Your task to perform on an android device: change your default location settings in chrome Image 0: 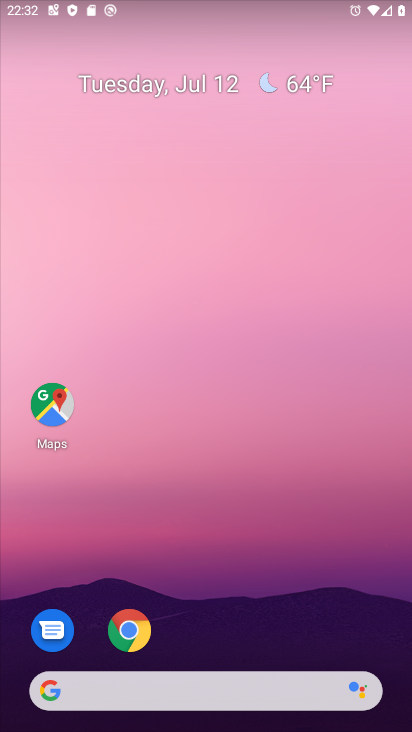
Step 0: drag from (208, 655) to (397, 666)
Your task to perform on an android device: change your default location settings in chrome Image 1: 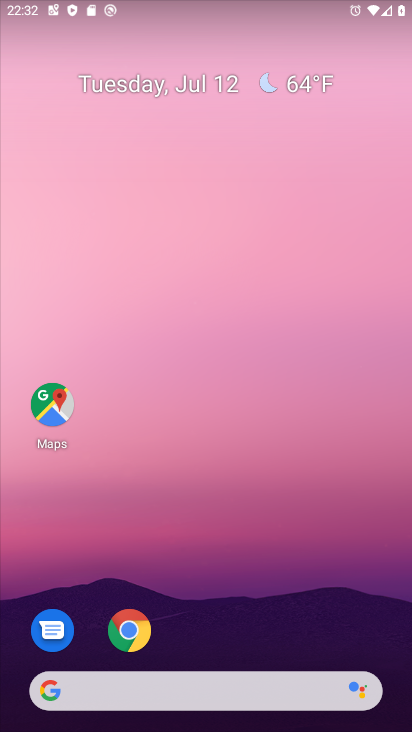
Step 1: click (140, 621)
Your task to perform on an android device: change your default location settings in chrome Image 2: 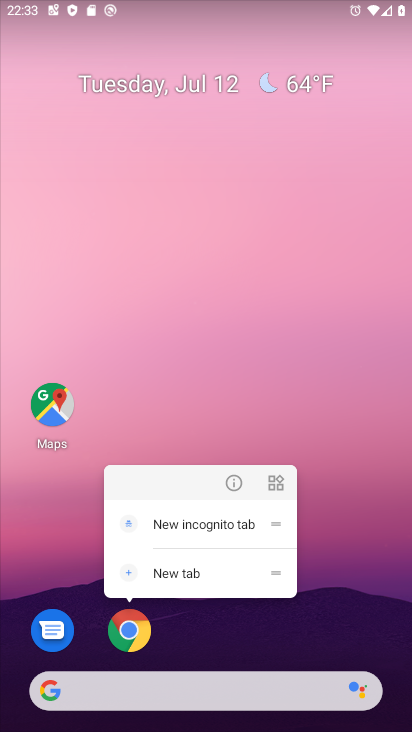
Step 2: click (131, 636)
Your task to perform on an android device: change your default location settings in chrome Image 3: 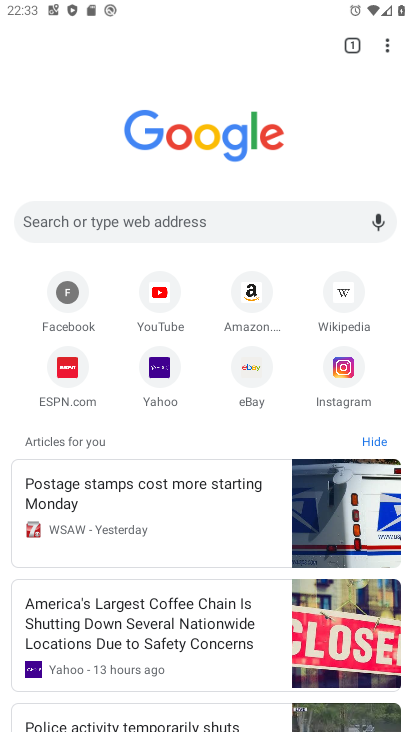
Step 3: click (388, 39)
Your task to perform on an android device: change your default location settings in chrome Image 4: 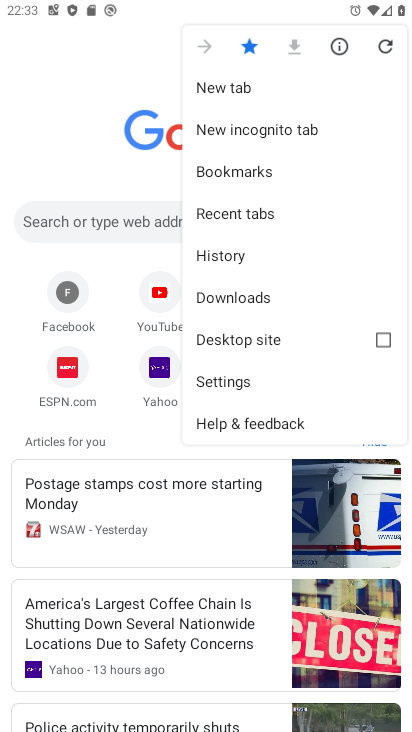
Step 4: click (208, 376)
Your task to perform on an android device: change your default location settings in chrome Image 5: 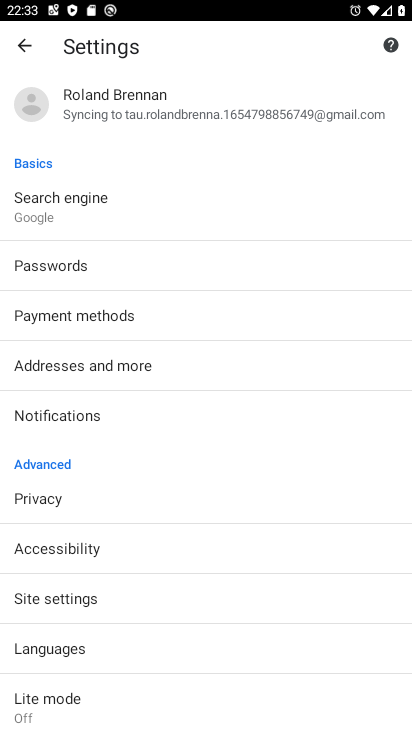
Step 5: click (58, 607)
Your task to perform on an android device: change your default location settings in chrome Image 6: 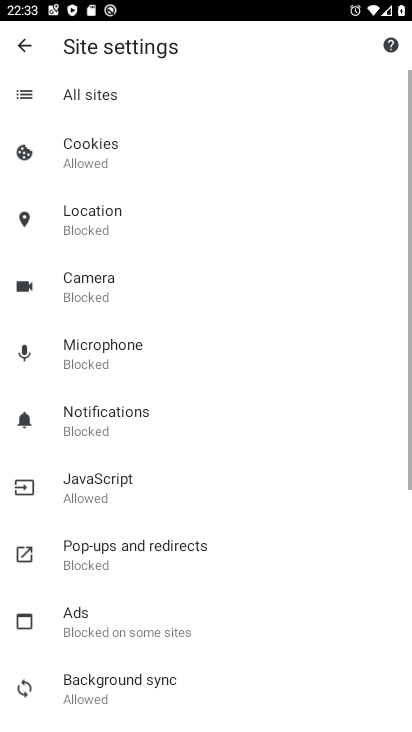
Step 6: click (72, 223)
Your task to perform on an android device: change your default location settings in chrome Image 7: 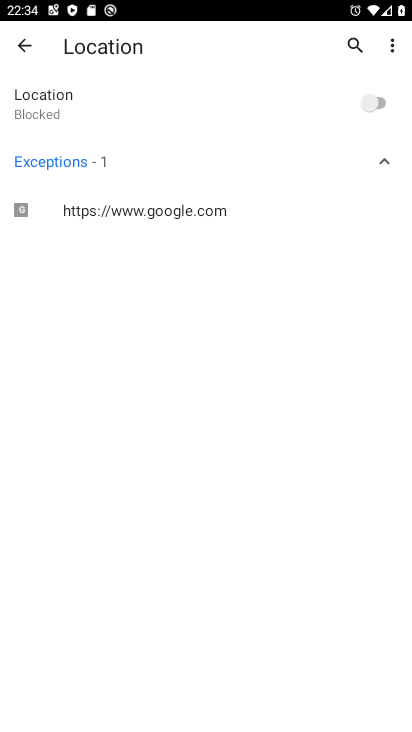
Step 7: click (380, 93)
Your task to perform on an android device: change your default location settings in chrome Image 8: 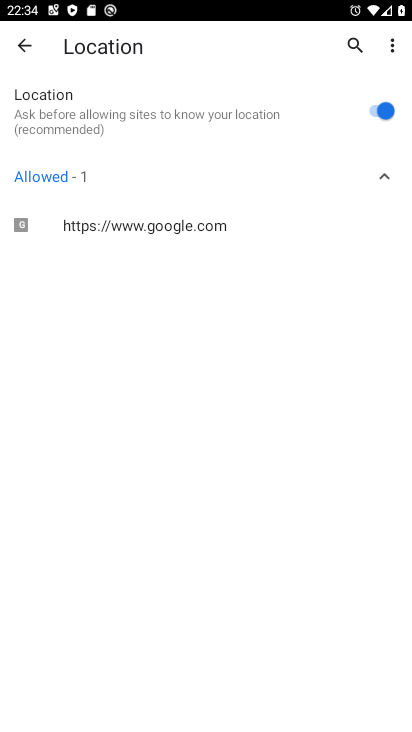
Step 8: task complete